Your task to perform on an android device: toggle wifi Image 0: 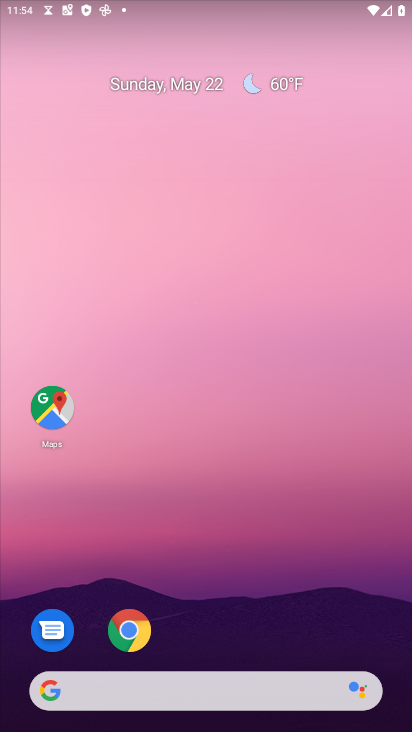
Step 0: drag from (233, 631) to (200, 80)
Your task to perform on an android device: toggle wifi Image 1: 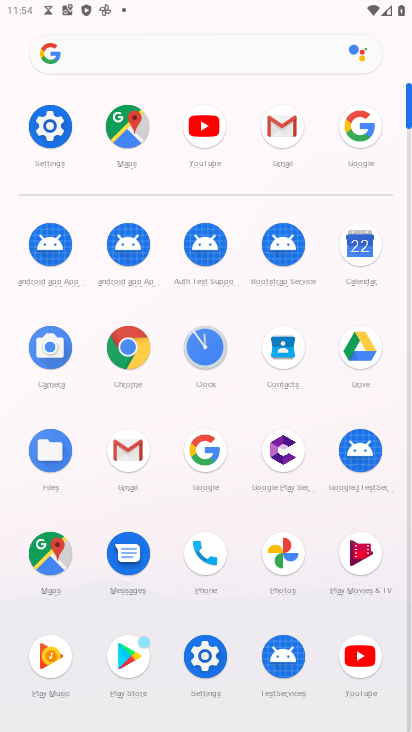
Step 1: click (54, 127)
Your task to perform on an android device: toggle wifi Image 2: 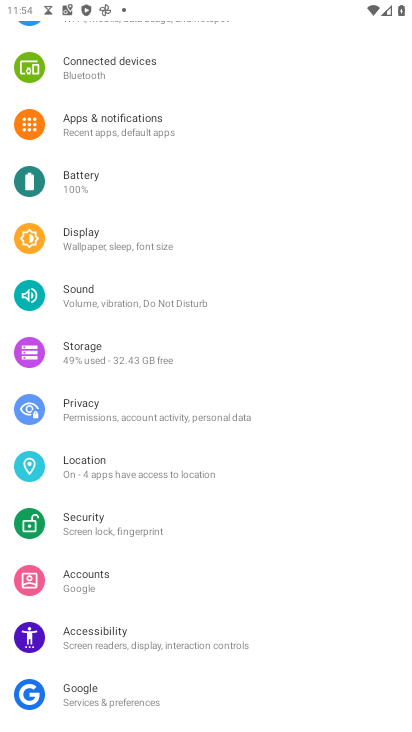
Step 2: drag from (175, 191) to (153, 364)
Your task to perform on an android device: toggle wifi Image 3: 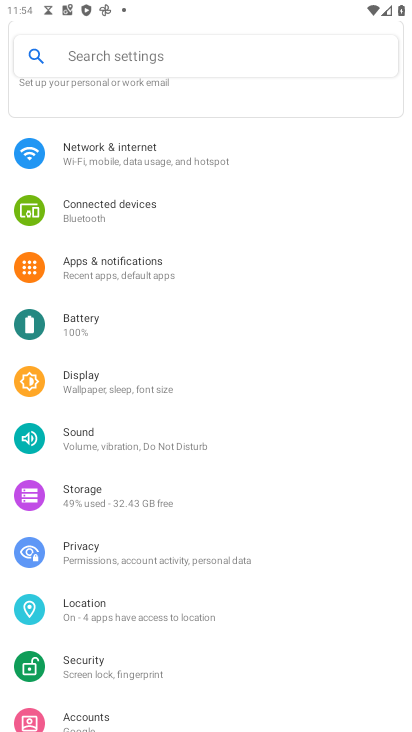
Step 3: click (127, 159)
Your task to perform on an android device: toggle wifi Image 4: 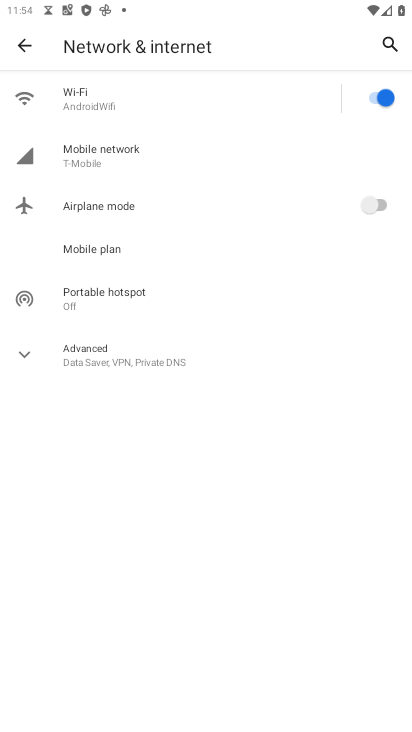
Step 4: click (394, 105)
Your task to perform on an android device: toggle wifi Image 5: 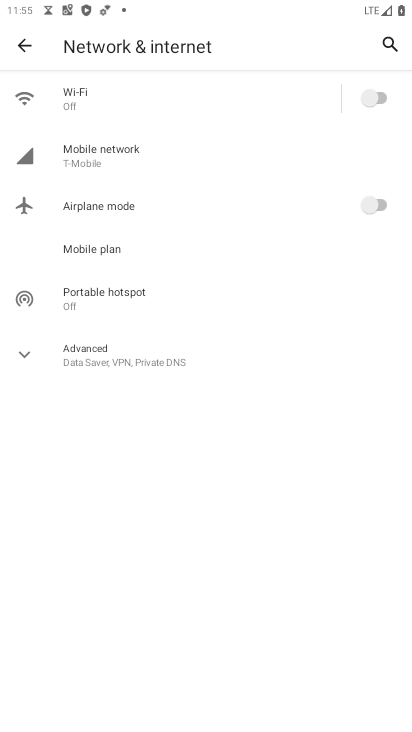
Step 5: task complete